Your task to perform on an android device: check out phone information Image 0: 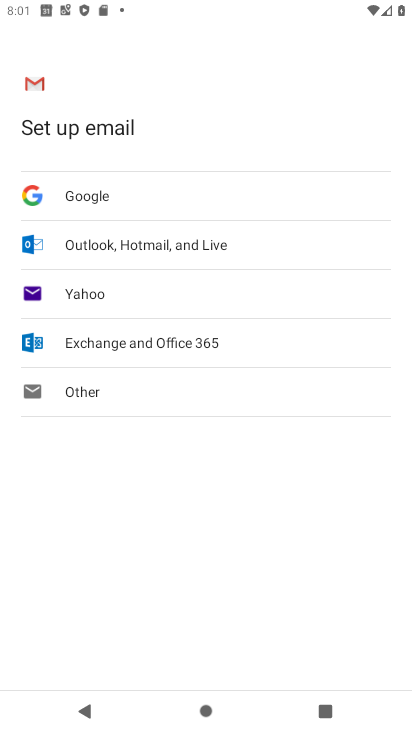
Step 0: press home button
Your task to perform on an android device: check out phone information Image 1: 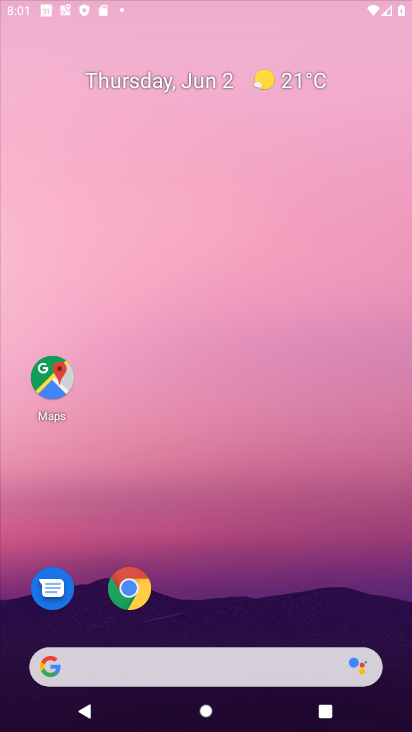
Step 1: drag from (185, 552) to (225, 207)
Your task to perform on an android device: check out phone information Image 2: 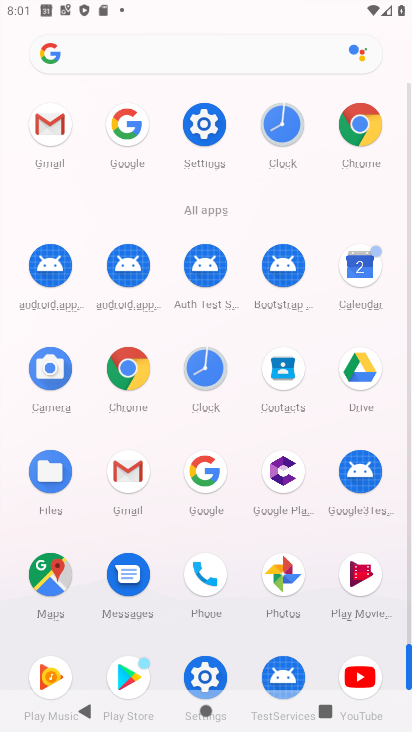
Step 2: click (221, 158)
Your task to perform on an android device: check out phone information Image 3: 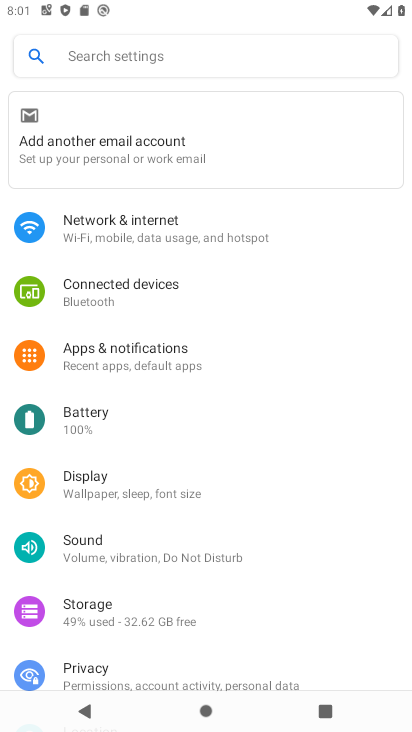
Step 3: drag from (187, 544) to (204, 175)
Your task to perform on an android device: check out phone information Image 4: 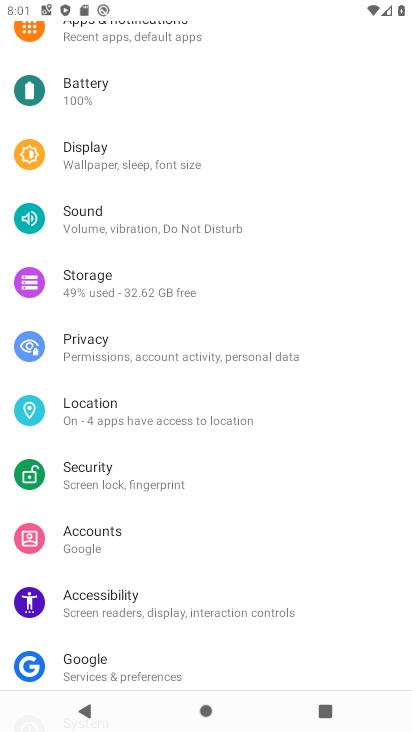
Step 4: drag from (216, 509) to (304, 209)
Your task to perform on an android device: check out phone information Image 5: 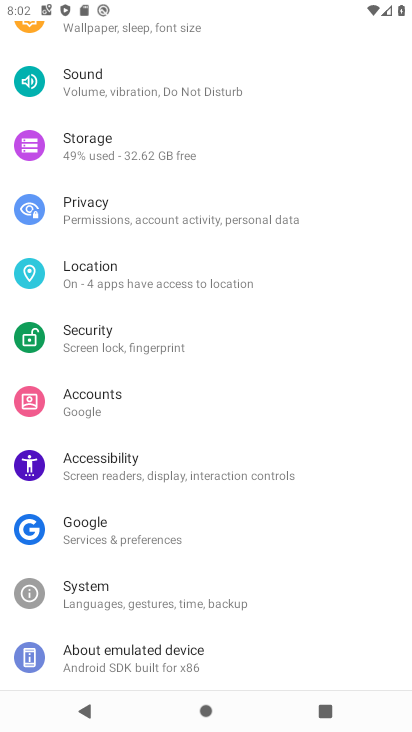
Step 5: drag from (181, 542) to (254, 92)
Your task to perform on an android device: check out phone information Image 6: 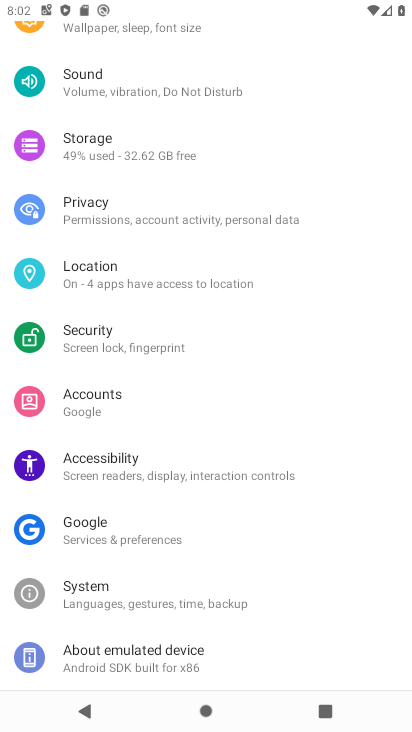
Step 6: click (188, 658)
Your task to perform on an android device: check out phone information Image 7: 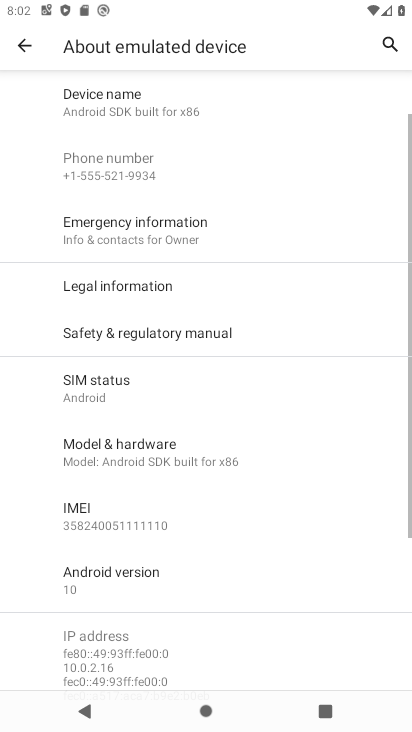
Step 7: task complete